Your task to perform on an android device: check the backup settings in the google photos Image 0: 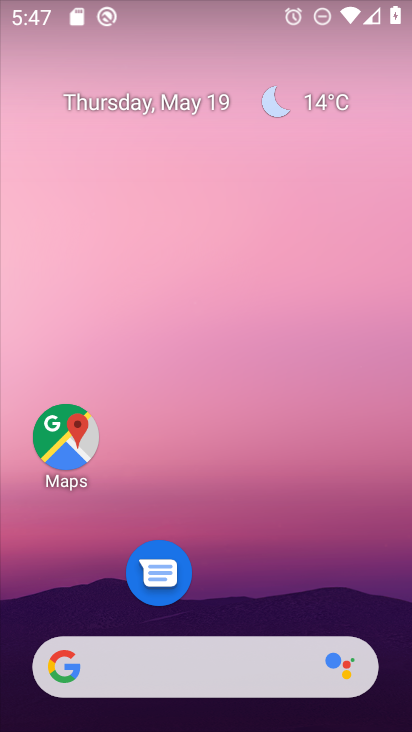
Step 0: drag from (233, 573) to (275, 151)
Your task to perform on an android device: check the backup settings in the google photos Image 1: 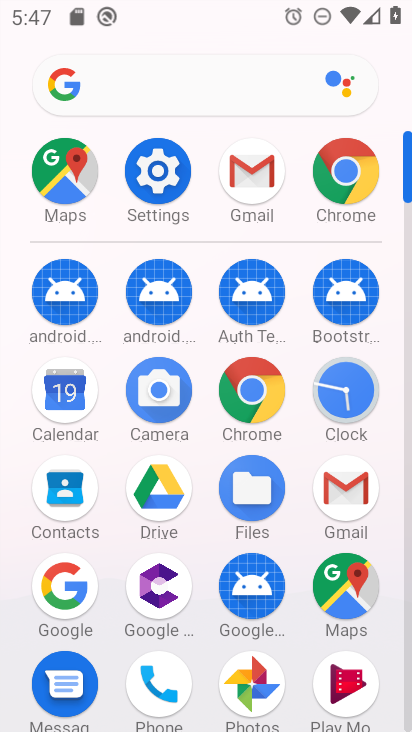
Step 1: press home button
Your task to perform on an android device: check the backup settings in the google photos Image 2: 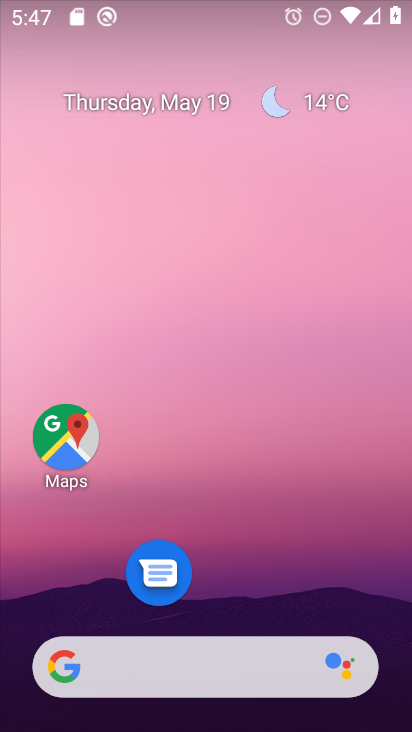
Step 2: drag from (231, 618) to (225, 183)
Your task to perform on an android device: check the backup settings in the google photos Image 3: 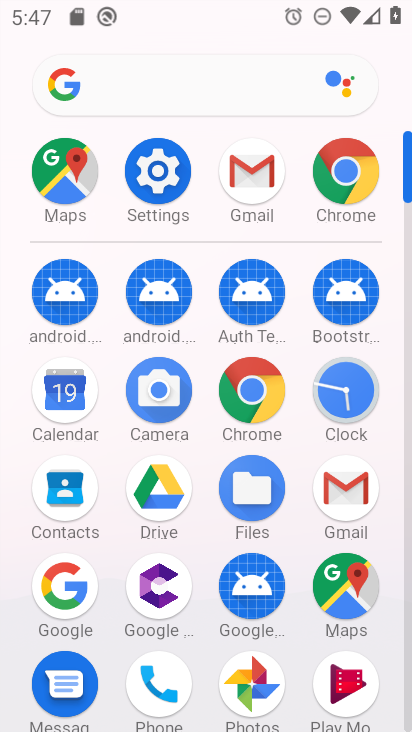
Step 3: click (248, 693)
Your task to perform on an android device: check the backup settings in the google photos Image 4: 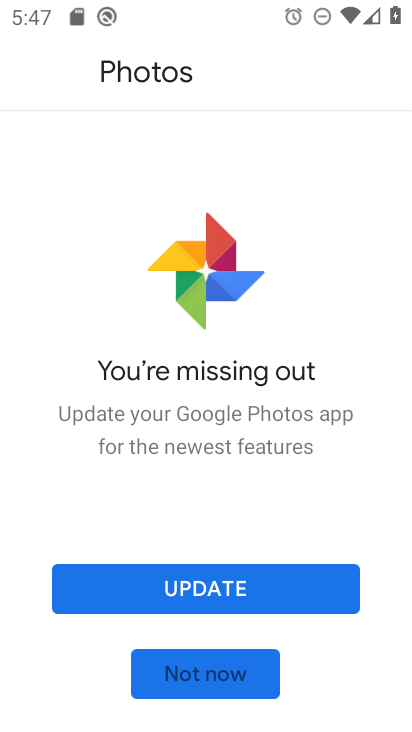
Step 4: click (248, 687)
Your task to perform on an android device: check the backup settings in the google photos Image 5: 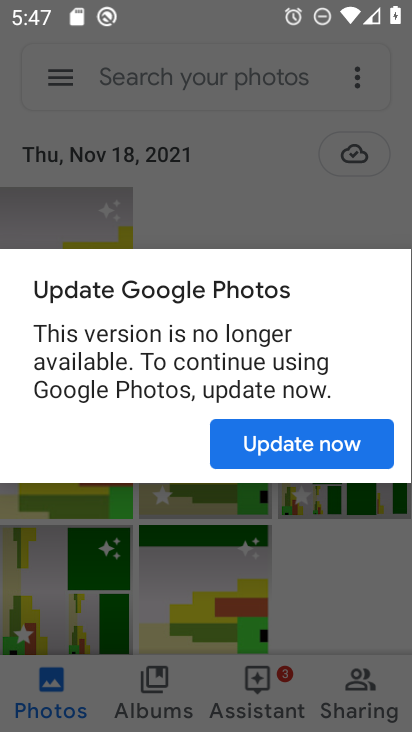
Step 5: click (271, 449)
Your task to perform on an android device: check the backup settings in the google photos Image 6: 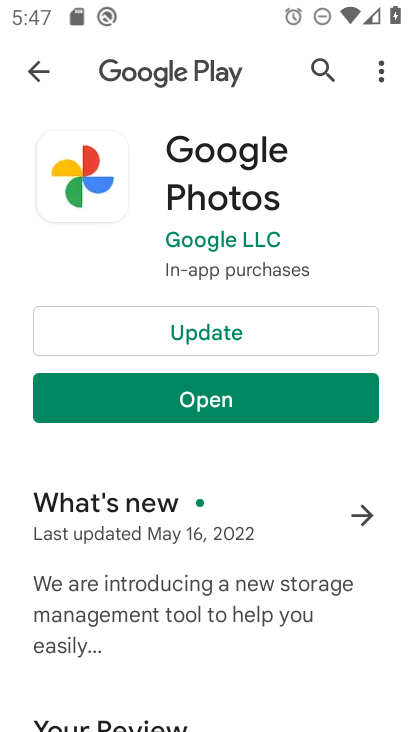
Step 6: click (194, 400)
Your task to perform on an android device: check the backup settings in the google photos Image 7: 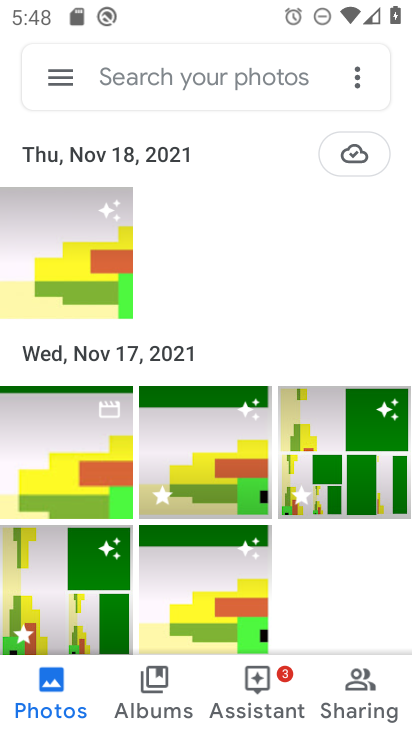
Step 7: click (63, 78)
Your task to perform on an android device: check the backup settings in the google photos Image 8: 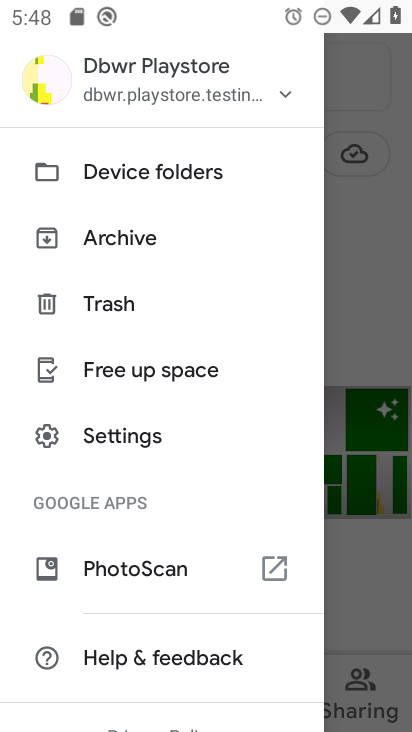
Step 8: click (124, 434)
Your task to perform on an android device: check the backup settings in the google photos Image 9: 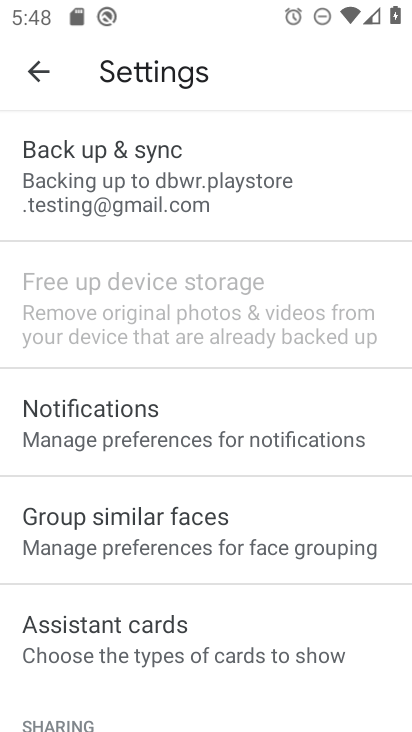
Step 9: click (118, 189)
Your task to perform on an android device: check the backup settings in the google photos Image 10: 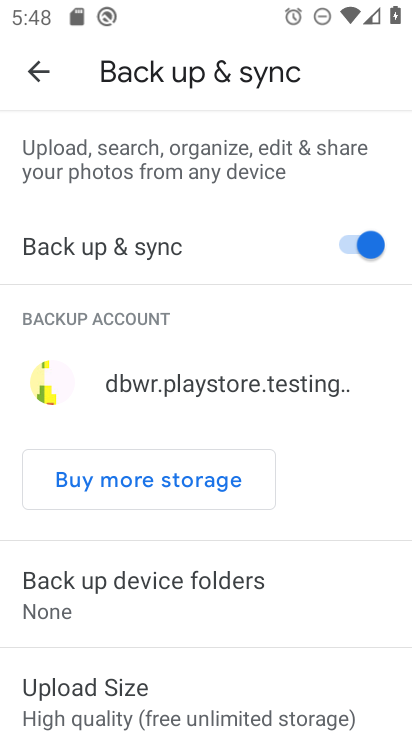
Step 10: task complete